Your task to perform on an android device: turn off wifi Image 0: 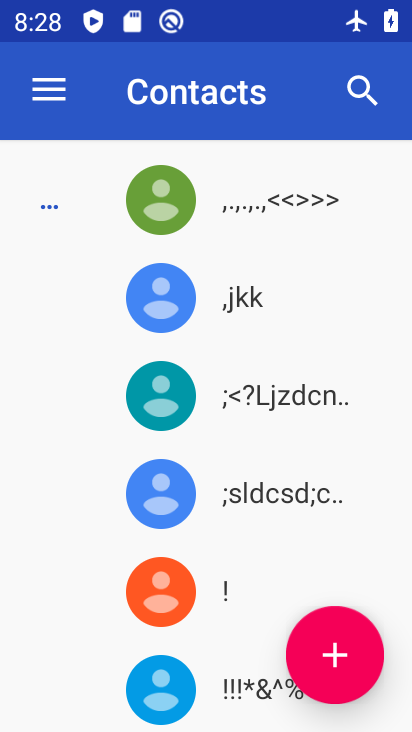
Step 0: press home button
Your task to perform on an android device: turn off wifi Image 1: 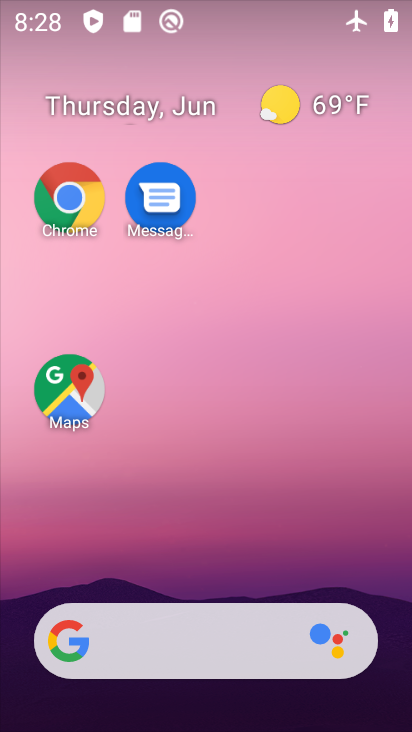
Step 1: drag from (232, 587) to (196, 27)
Your task to perform on an android device: turn off wifi Image 2: 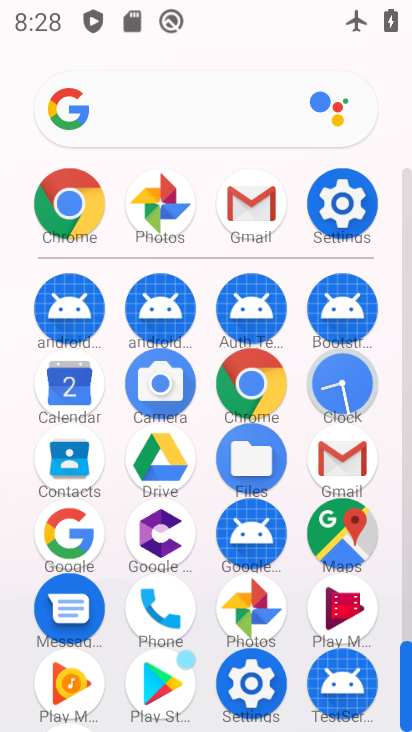
Step 2: click (317, 171)
Your task to perform on an android device: turn off wifi Image 3: 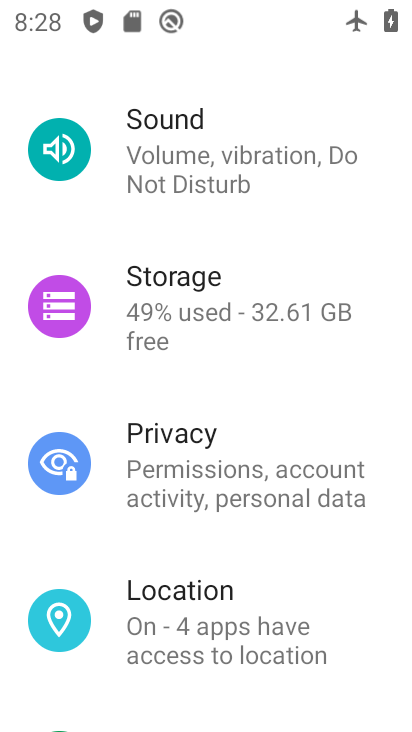
Step 3: drag from (317, 171) to (211, 677)
Your task to perform on an android device: turn off wifi Image 4: 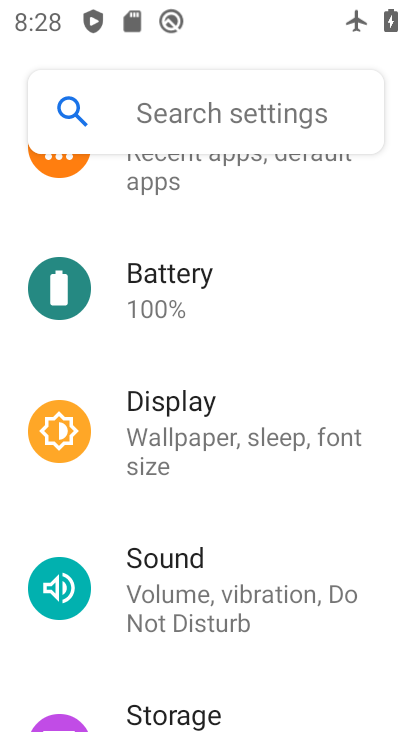
Step 4: drag from (199, 233) to (163, 621)
Your task to perform on an android device: turn off wifi Image 5: 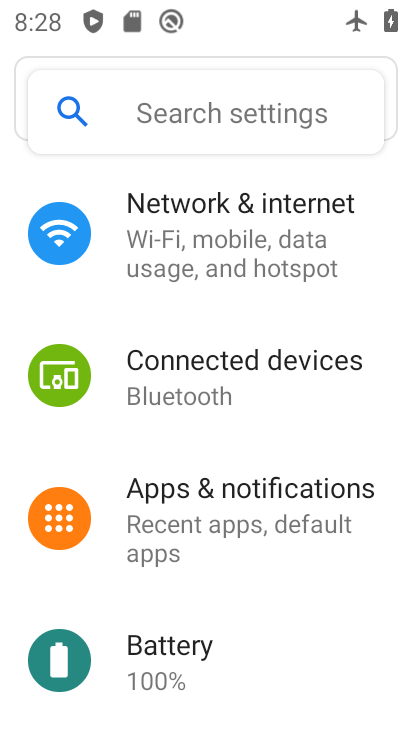
Step 5: click (189, 274)
Your task to perform on an android device: turn off wifi Image 6: 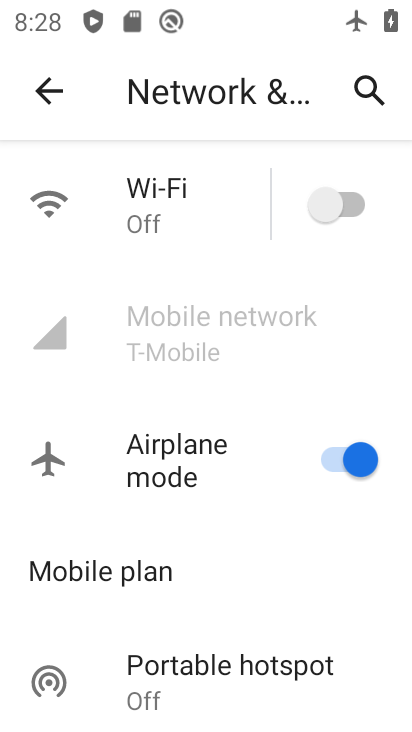
Step 6: click (201, 213)
Your task to perform on an android device: turn off wifi Image 7: 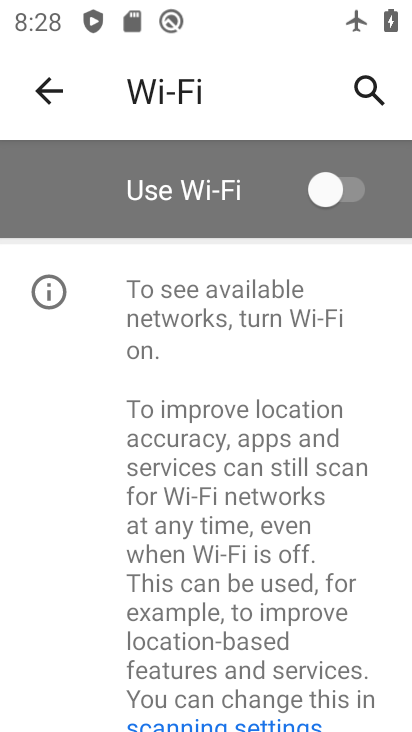
Step 7: task complete